Your task to perform on an android device: Set the phone to "Do not disturb". Image 0: 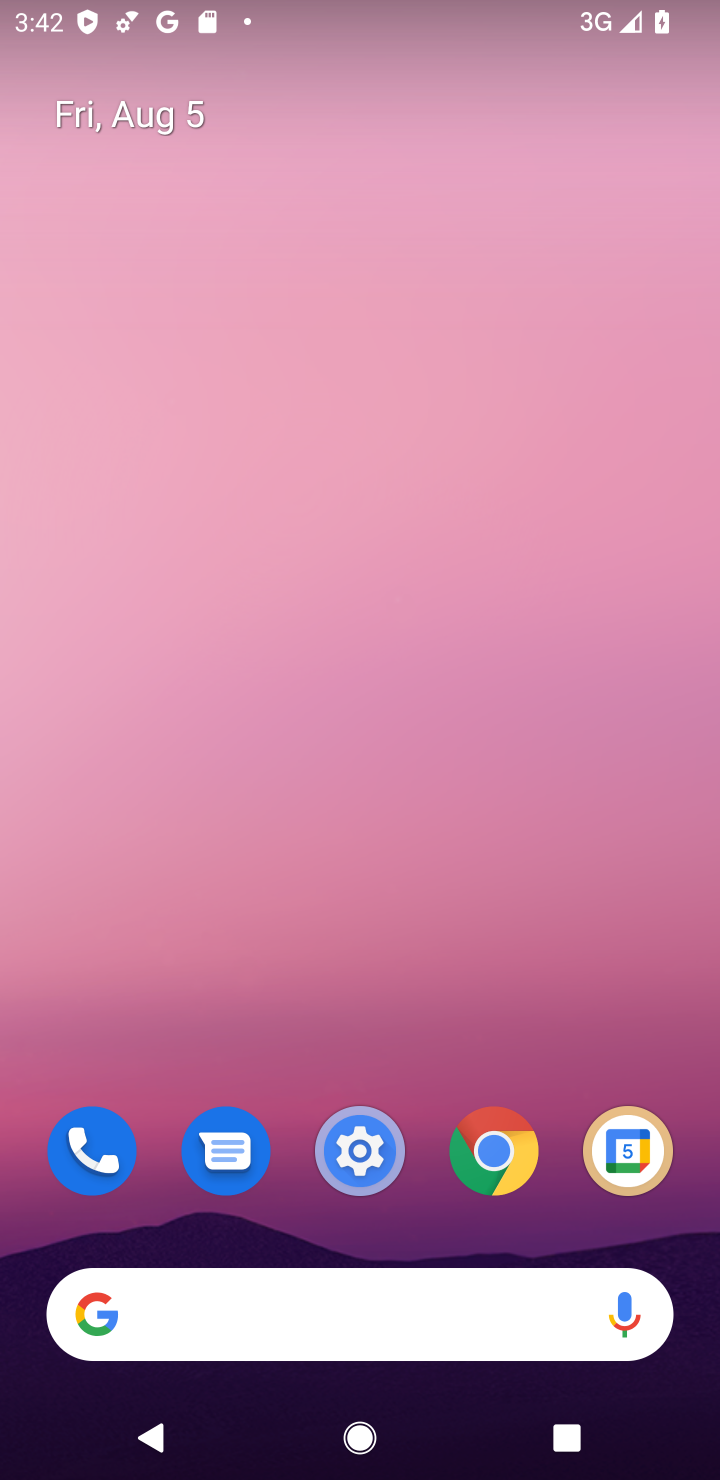
Step 0: click (356, 1161)
Your task to perform on an android device: Set the phone to "Do not disturb". Image 1: 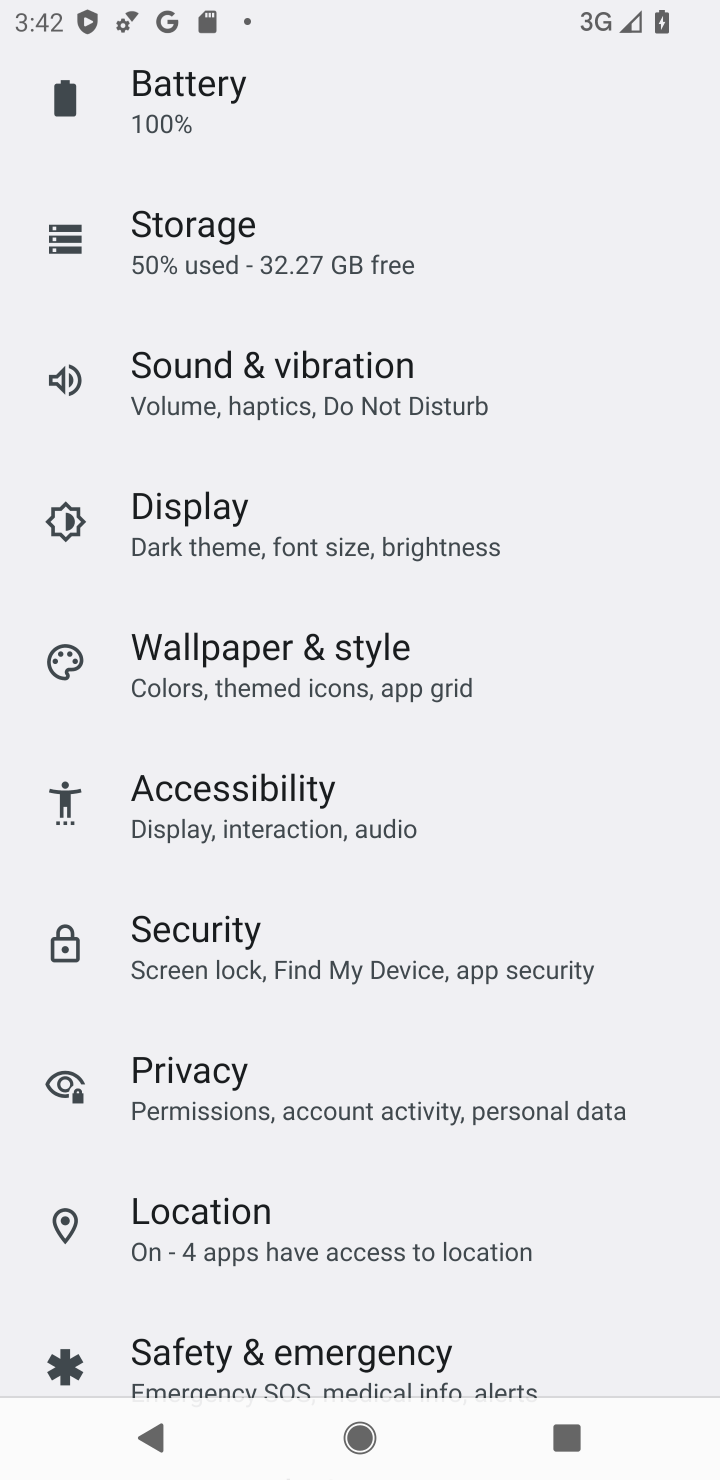
Step 1: click (365, 410)
Your task to perform on an android device: Set the phone to "Do not disturb". Image 2: 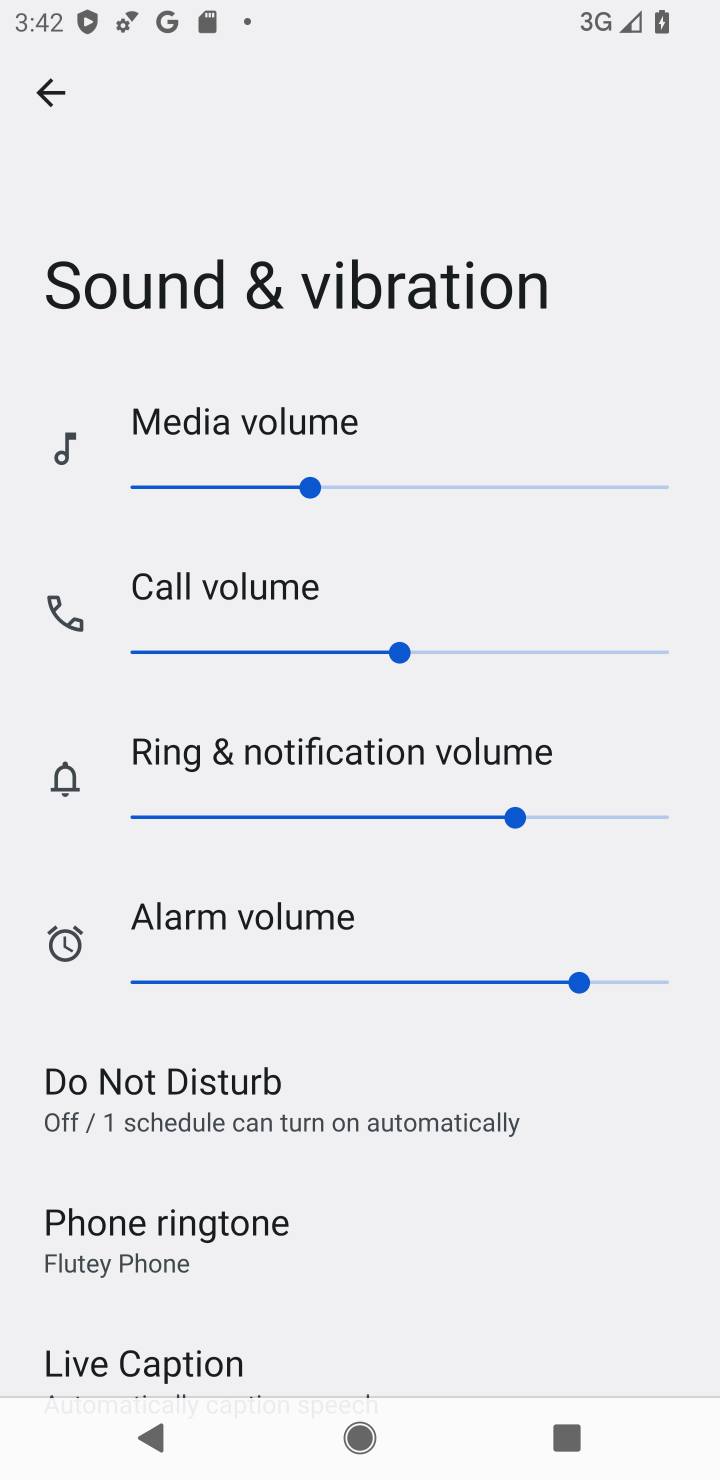
Step 2: click (132, 1120)
Your task to perform on an android device: Set the phone to "Do not disturb". Image 3: 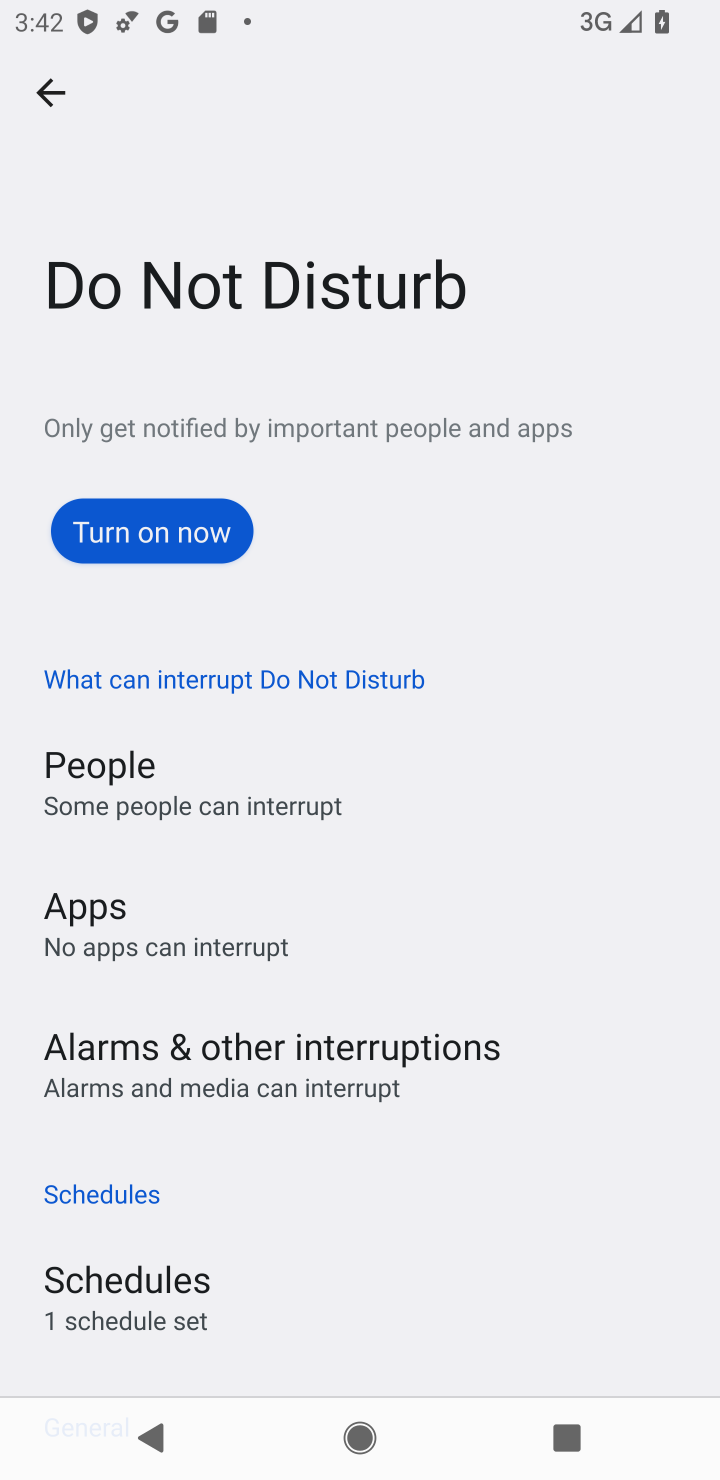
Step 3: click (174, 545)
Your task to perform on an android device: Set the phone to "Do not disturb". Image 4: 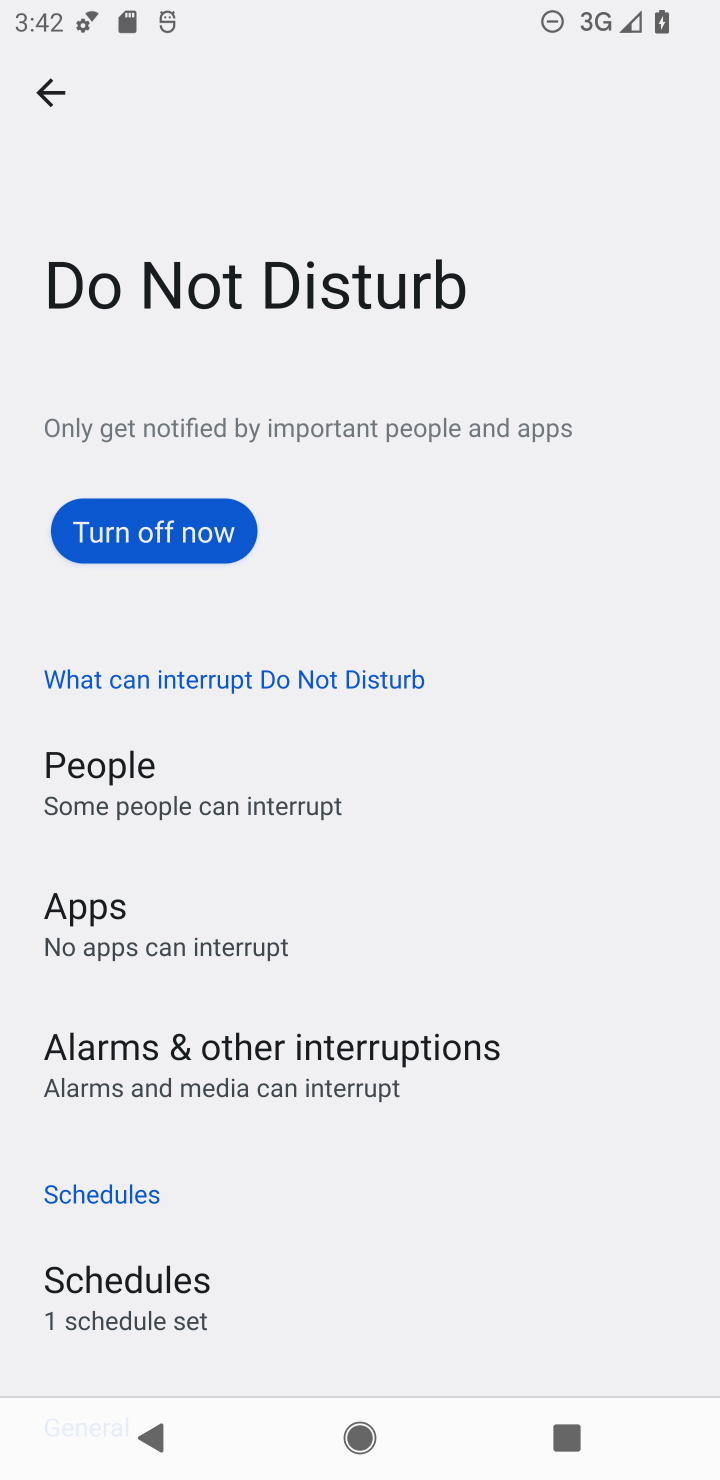
Step 4: task complete